Your task to perform on an android device: Set the phone to "Do not disturb". Image 0: 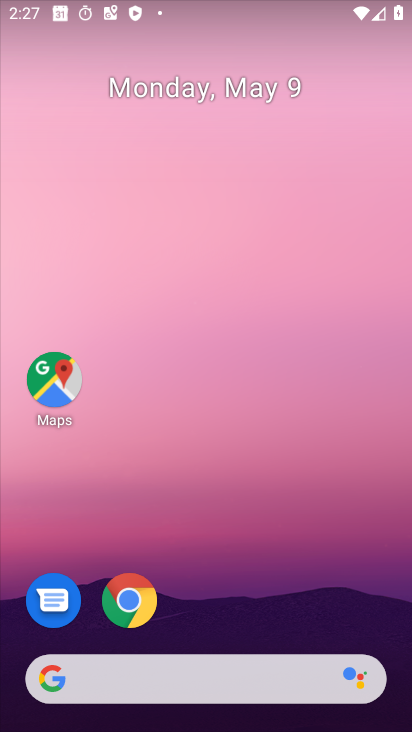
Step 0: drag from (276, 20) to (265, 416)
Your task to perform on an android device: Set the phone to "Do not disturb". Image 1: 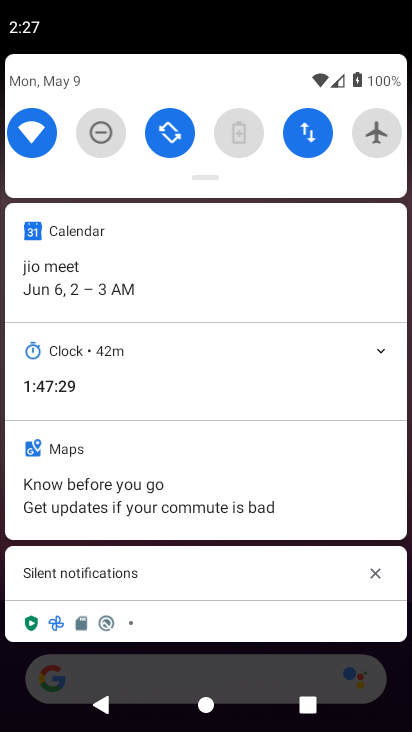
Step 1: click (106, 142)
Your task to perform on an android device: Set the phone to "Do not disturb". Image 2: 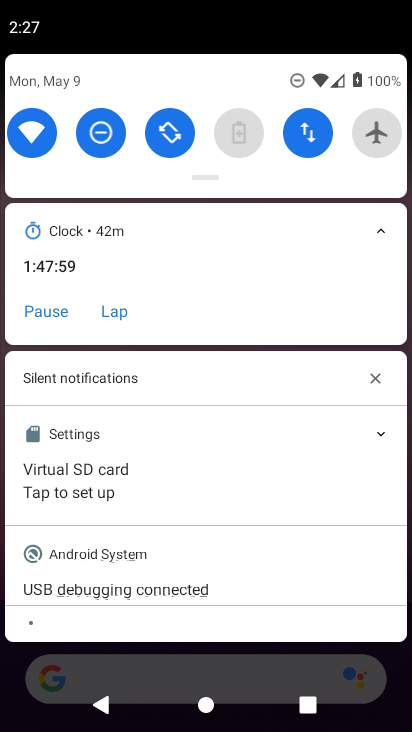
Step 2: task complete